Your task to perform on an android device: Open Google Maps and go to "Timeline" Image 0: 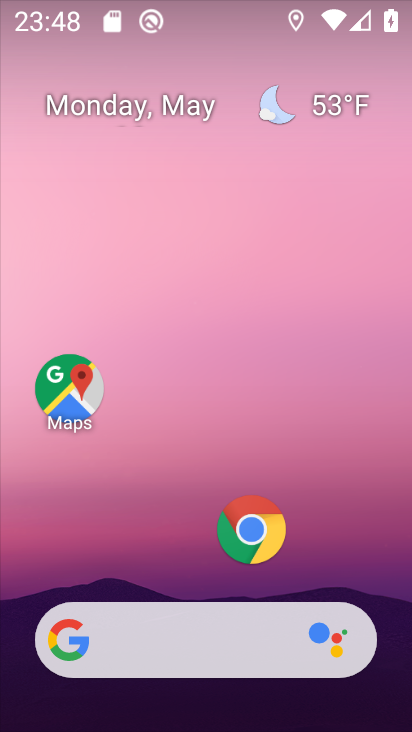
Step 0: click (70, 371)
Your task to perform on an android device: Open Google Maps and go to "Timeline" Image 1: 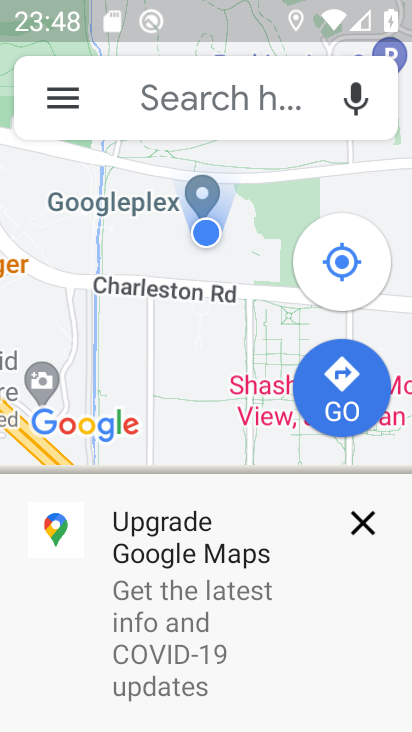
Step 1: click (69, 101)
Your task to perform on an android device: Open Google Maps and go to "Timeline" Image 2: 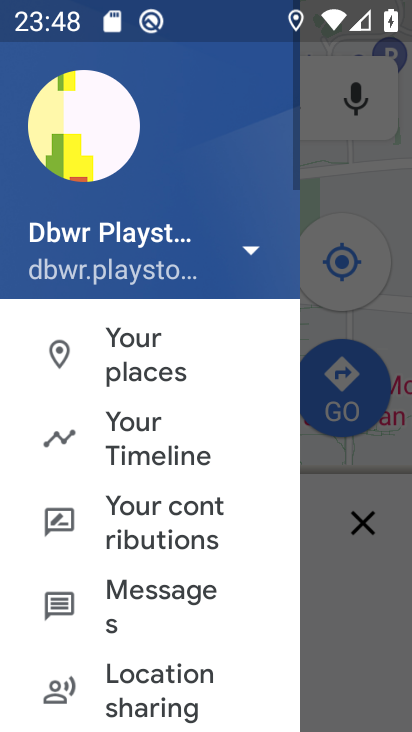
Step 2: click (147, 423)
Your task to perform on an android device: Open Google Maps and go to "Timeline" Image 3: 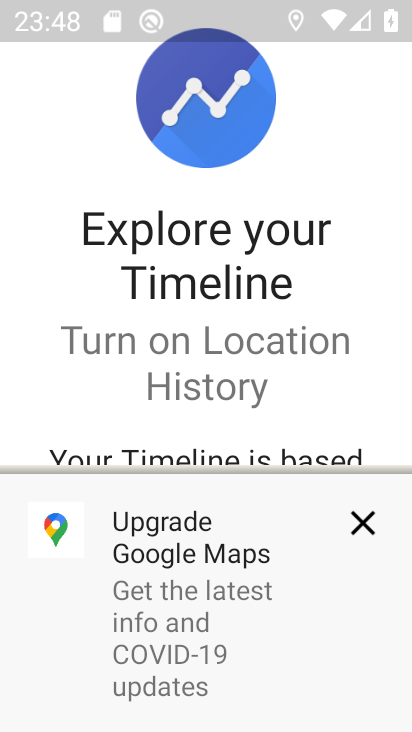
Step 3: click (353, 521)
Your task to perform on an android device: Open Google Maps and go to "Timeline" Image 4: 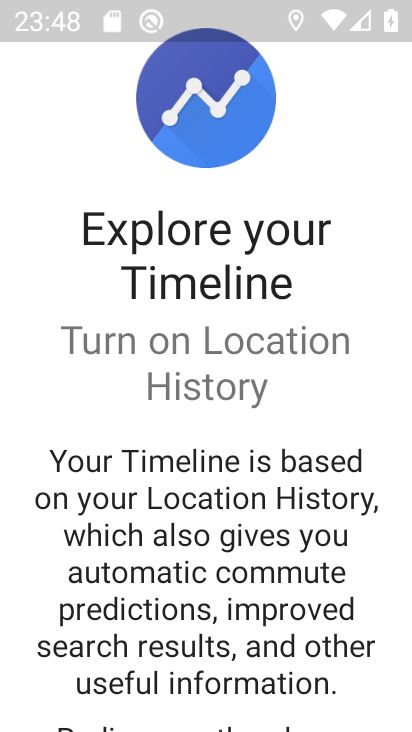
Step 4: drag from (328, 543) to (332, 126)
Your task to perform on an android device: Open Google Maps and go to "Timeline" Image 5: 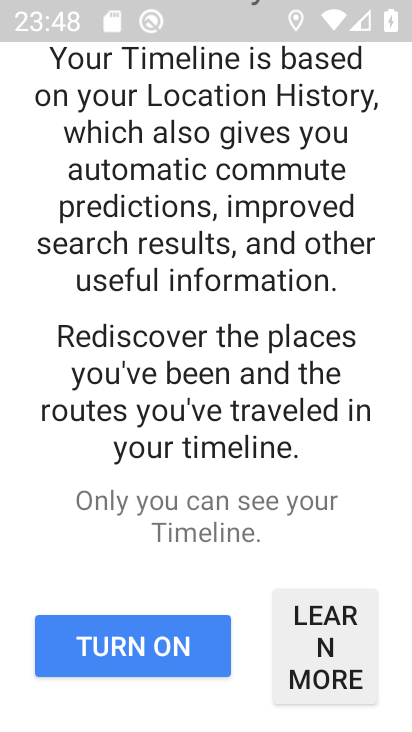
Step 5: click (132, 657)
Your task to perform on an android device: Open Google Maps and go to "Timeline" Image 6: 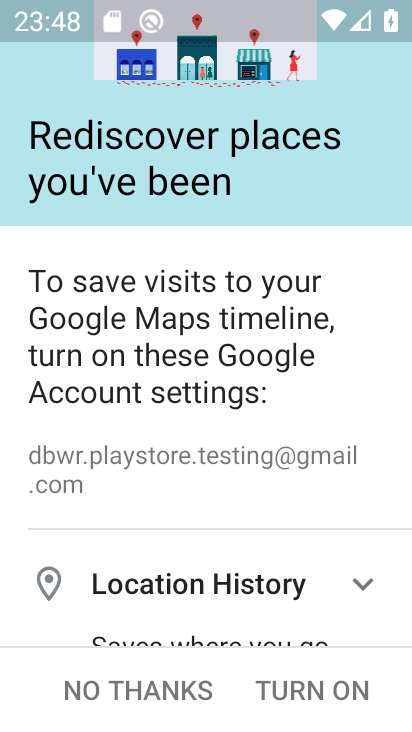
Step 6: click (319, 685)
Your task to perform on an android device: Open Google Maps and go to "Timeline" Image 7: 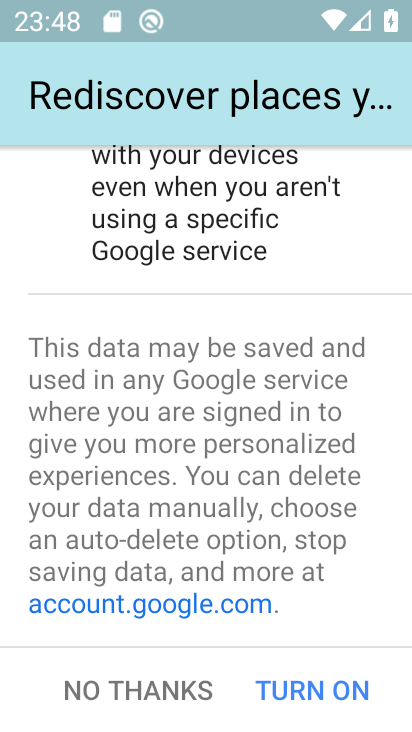
Step 7: click (319, 685)
Your task to perform on an android device: Open Google Maps and go to "Timeline" Image 8: 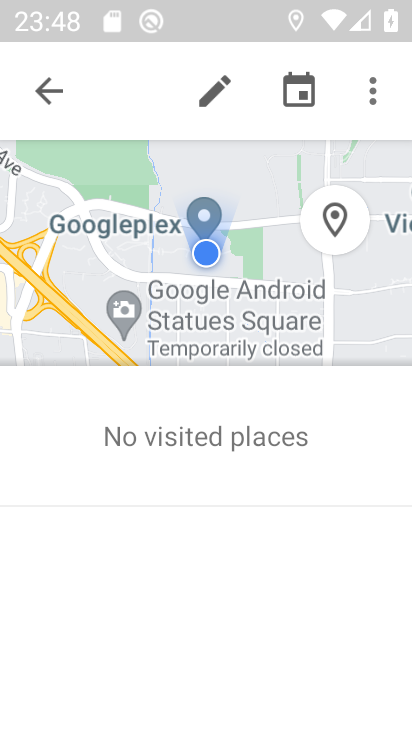
Step 8: task complete